Your task to perform on an android device: read, delete, or share a saved page in the chrome app Image 0: 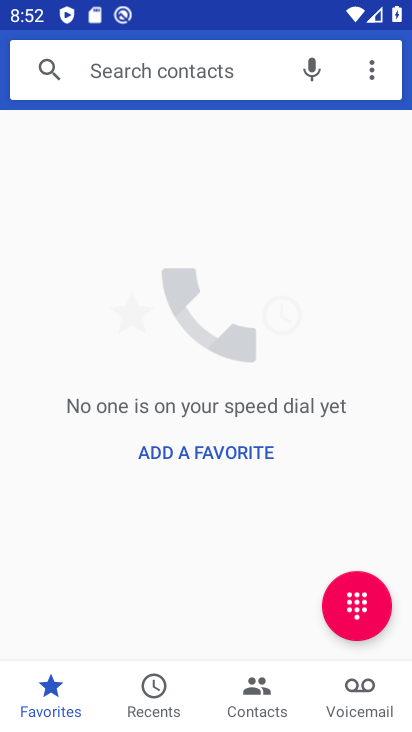
Step 0: press back button
Your task to perform on an android device: read, delete, or share a saved page in the chrome app Image 1: 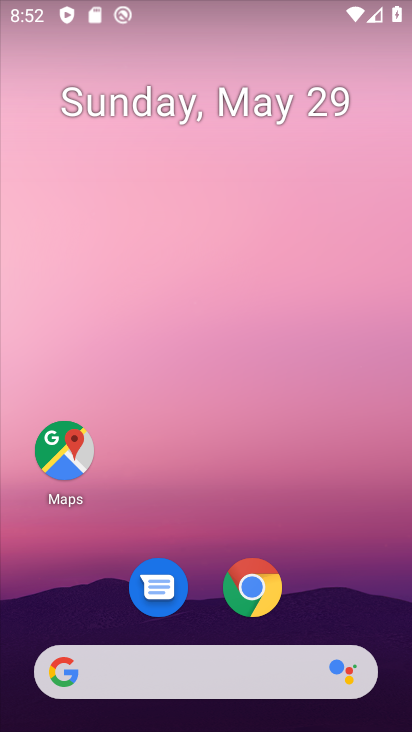
Step 1: click (257, 586)
Your task to perform on an android device: read, delete, or share a saved page in the chrome app Image 2: 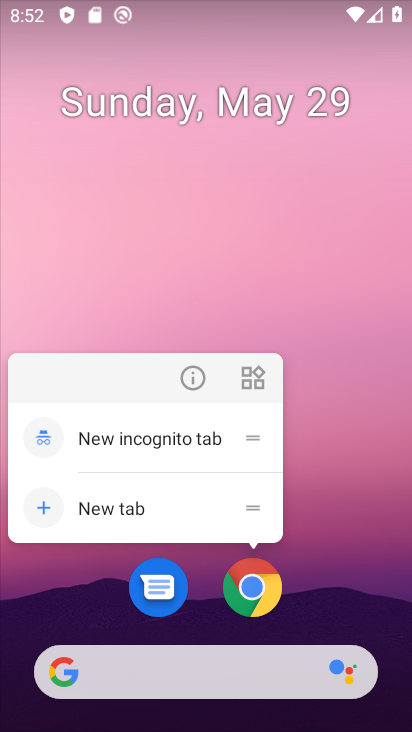
Step 2: click (257, 586)
Your task to perform on an android device: read, delete, or share a saved page in the chrome app Image 3: 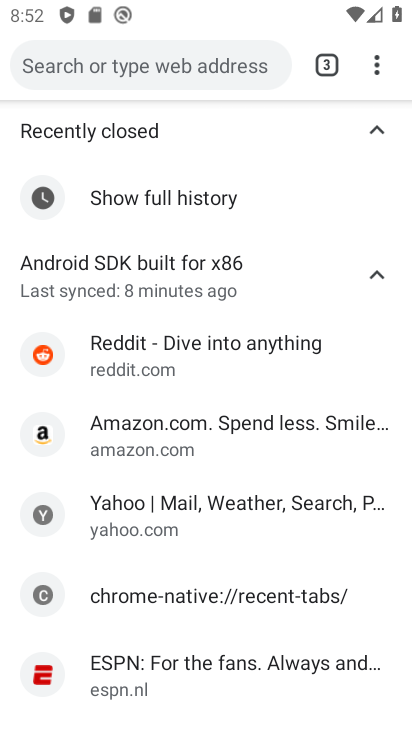
Step 3: drag from (371, 58) to (135, 421)
Your task to perform on an android device: read, delete, or share a saved page in the chrome app Image 4: 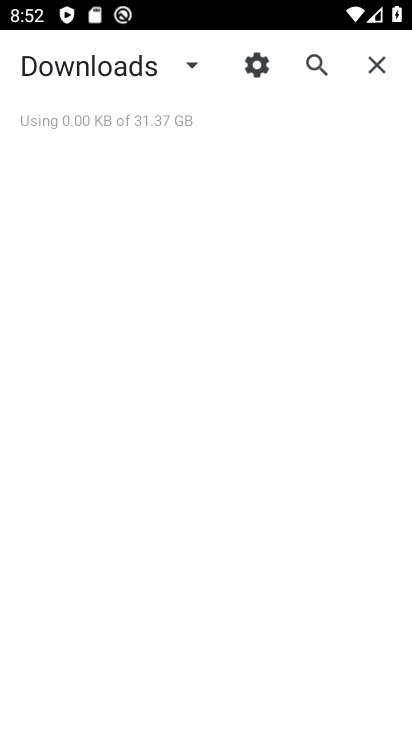
Step 4: click (184, 77)
Your task to perform on an android device: read, delete, or share a saved page in the chrome app Image 5: 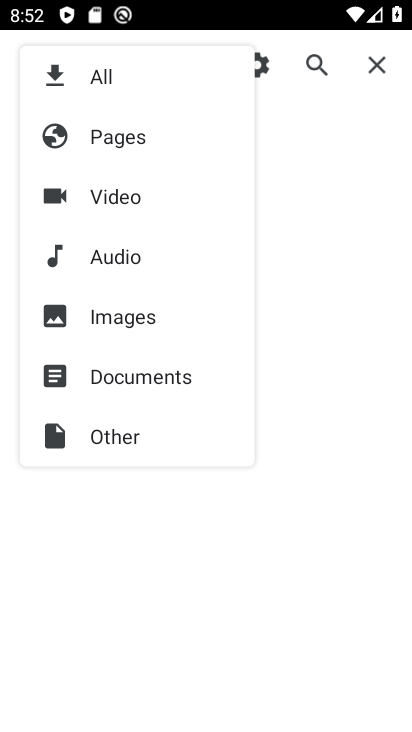
Step 5: click (127, 142)
Your task to perform on an android device: read, delete, or share a saved page in the chrome app Image 6: 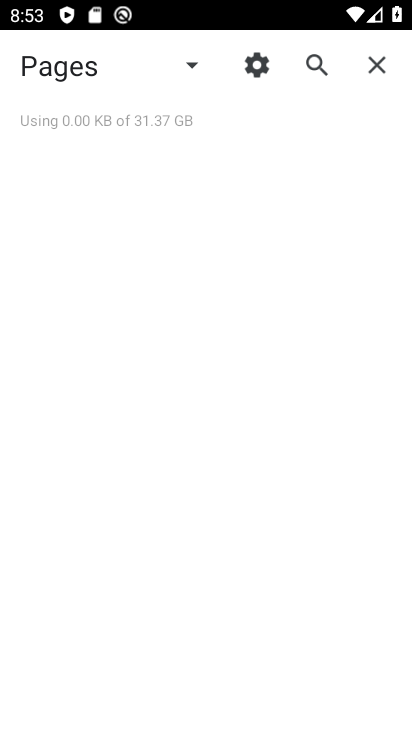
Step 6: click (181, 58)
Your task to perform on an android device: read, delete, or share a saved page in the chrome app Image 7: 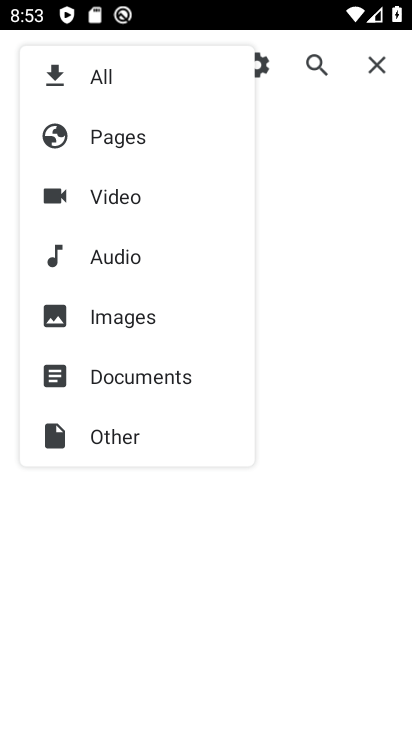
Step 7: click (119, 142)
Your task to perform on an android device: read, delete, or share a saved page in the chrome app Image 8: 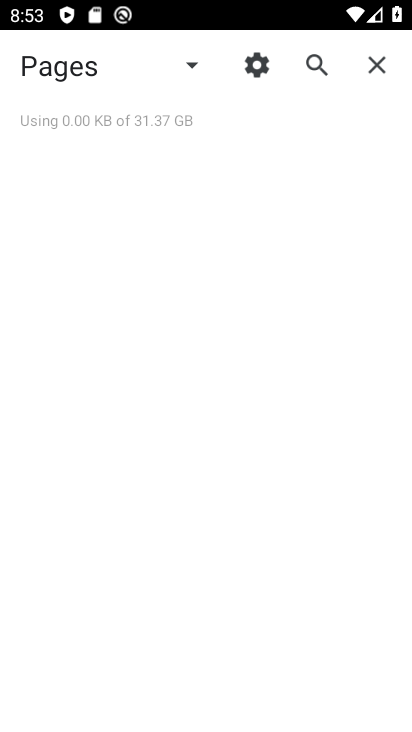
Step 8: task complete